Your task to perform on an android device: toggle show notifications on the lock screen Image 0: 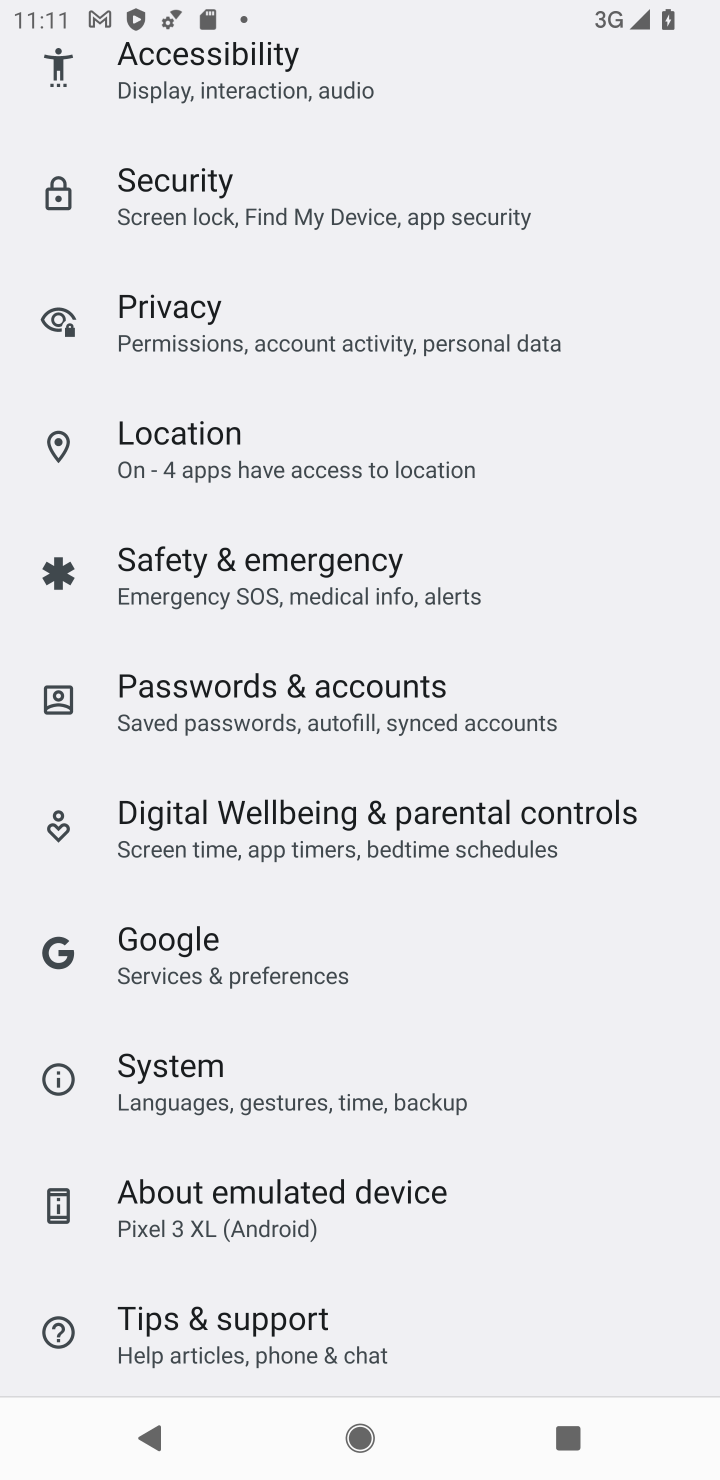
Step 0: drag from (433, 177) to (678, 1434)
Your task to perform on an android device: toggle show notifications on the lock screen Image 1: 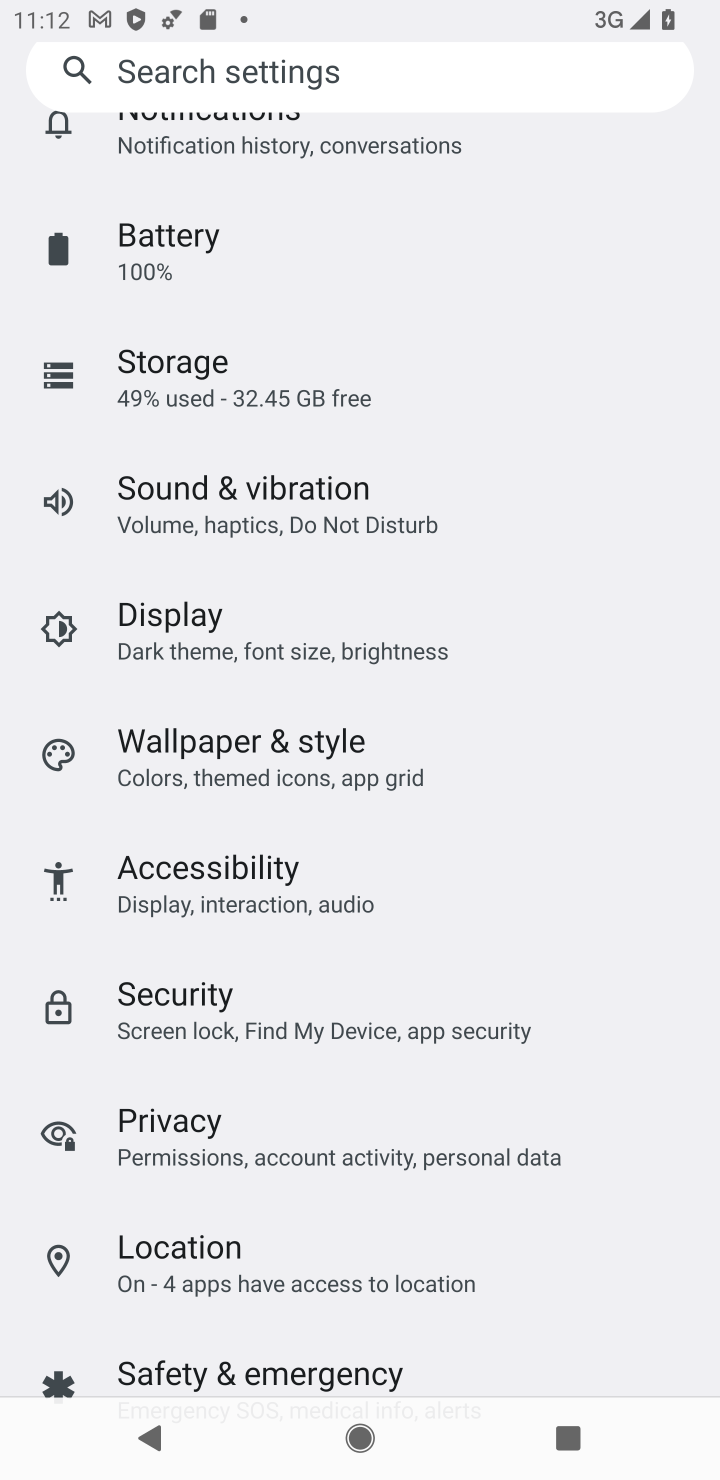
Step 1: drag from (343, 209) to (291, 1470)
Your task to perform on an android device: toggle show notifications on the lock screen Image 2: 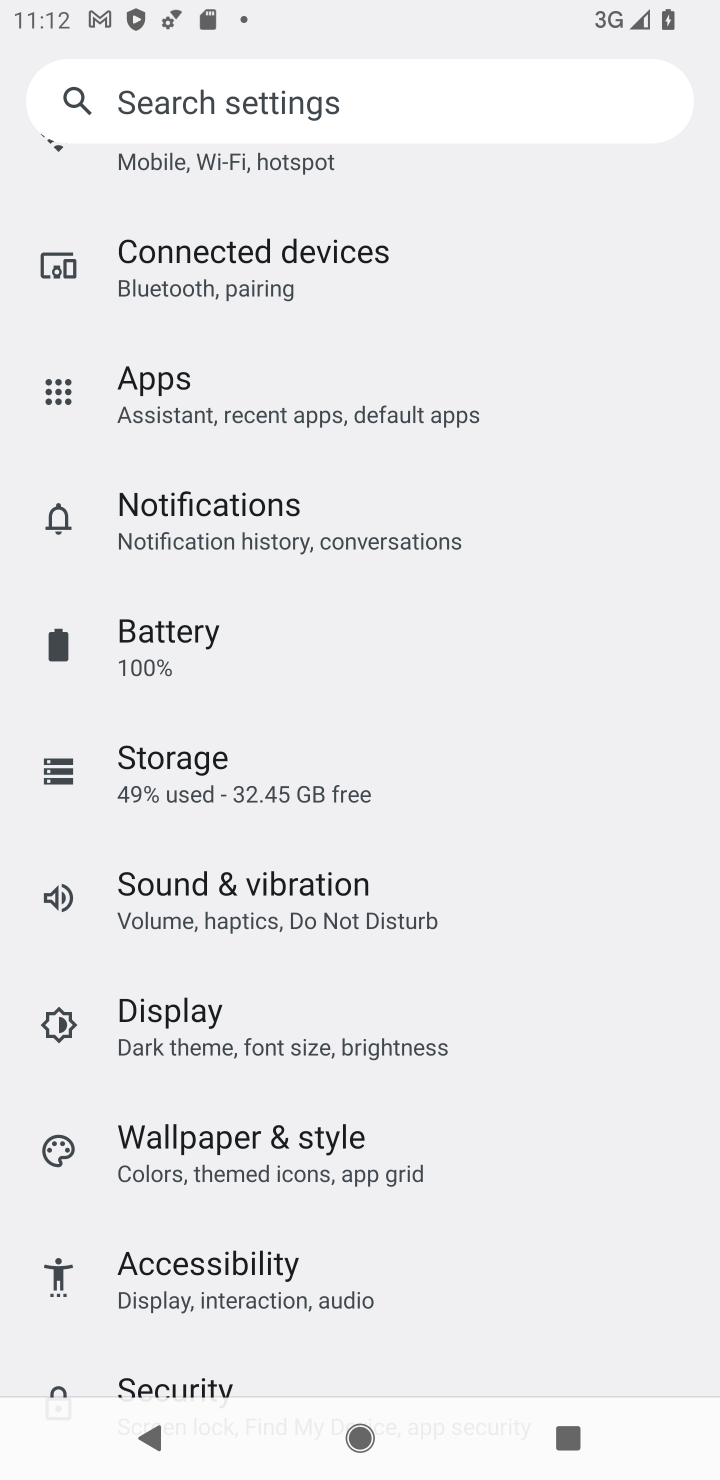
Step 2: drag from (370, 234) to (433, 844)
Your task to perform on an android device: toggle show notifications on the lock screen Image 3: 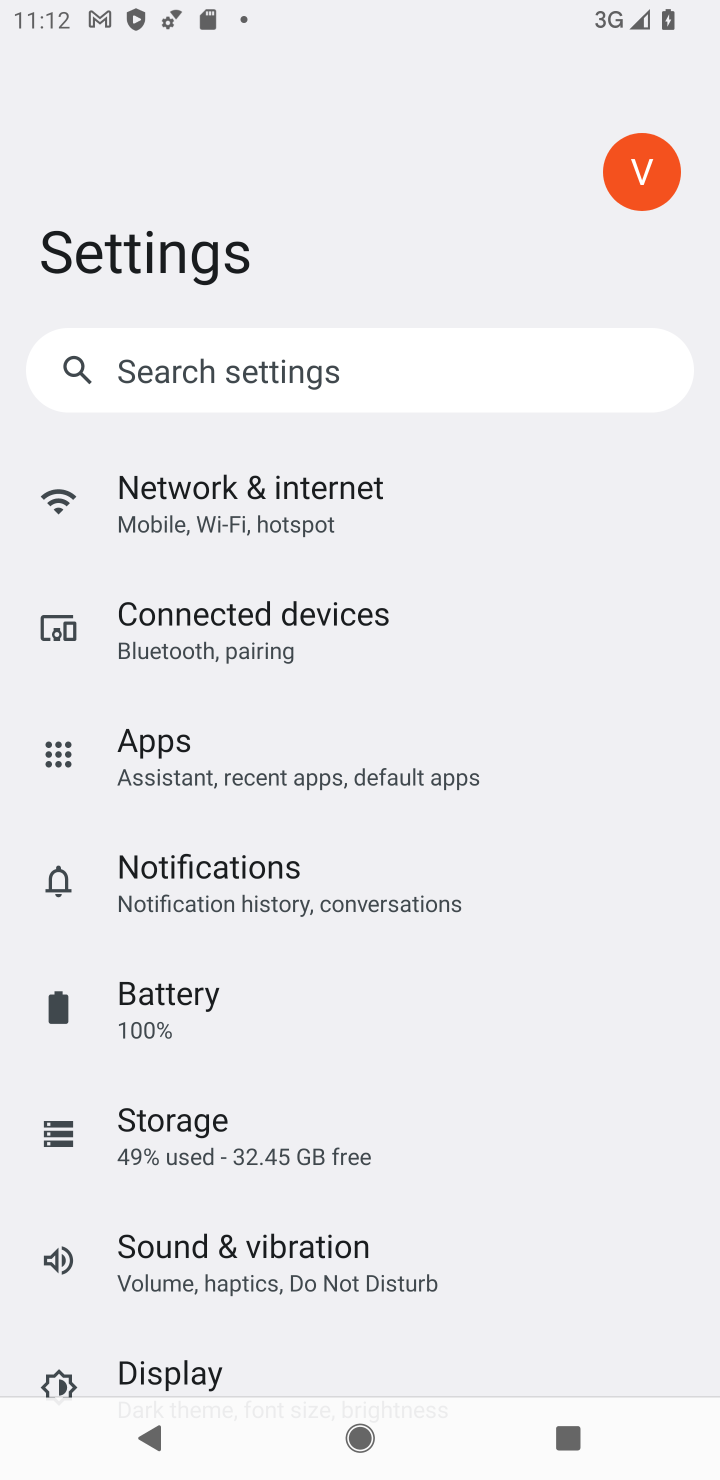
Step 3: click (213, 898)
Your task to perform on an android device: toggle show notifications on the lock screen Image 4: 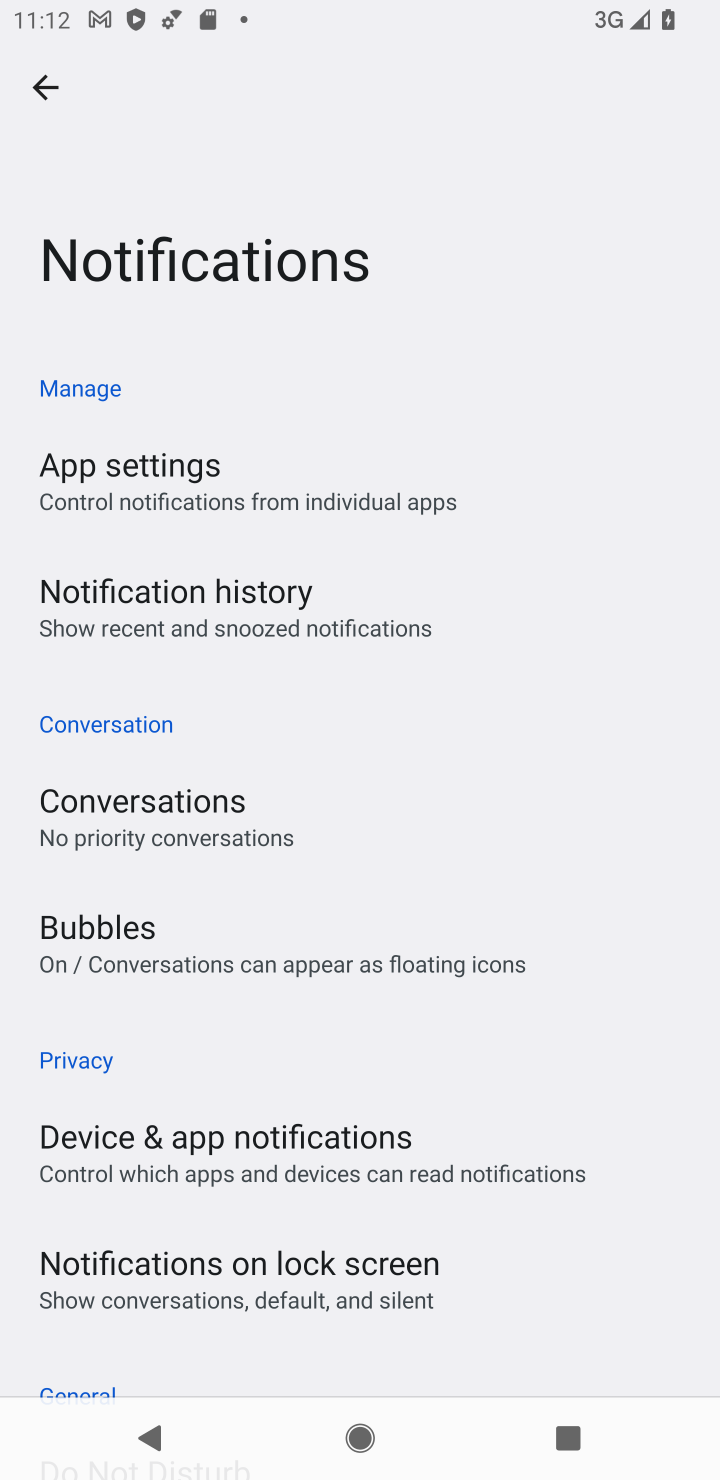
Step 4: click (540, 1282)
Your task to perform on an android device: toggle show notifications on the lock screen Image 5: 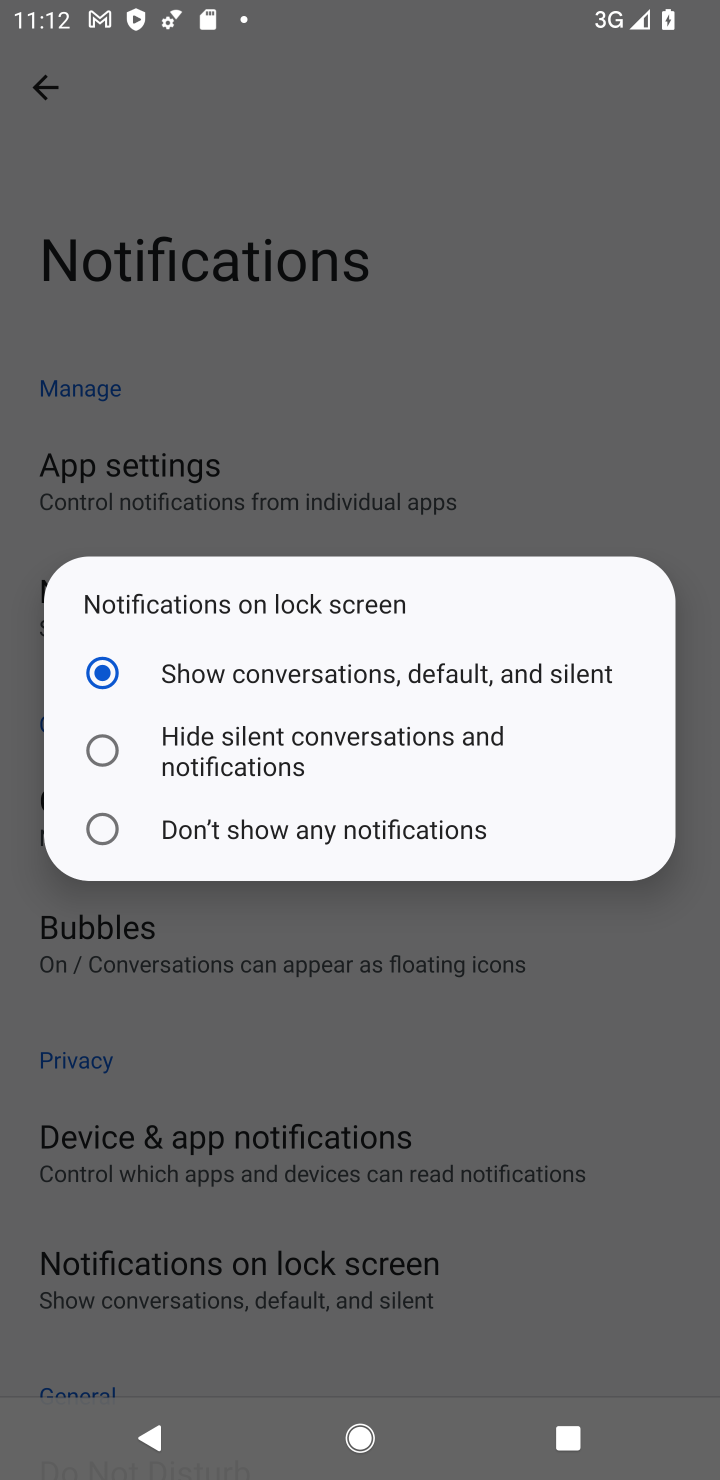
Step 5: click (357, 739)
Your task to perform on an android device: toggle show notifications on the lock screen Image 6: 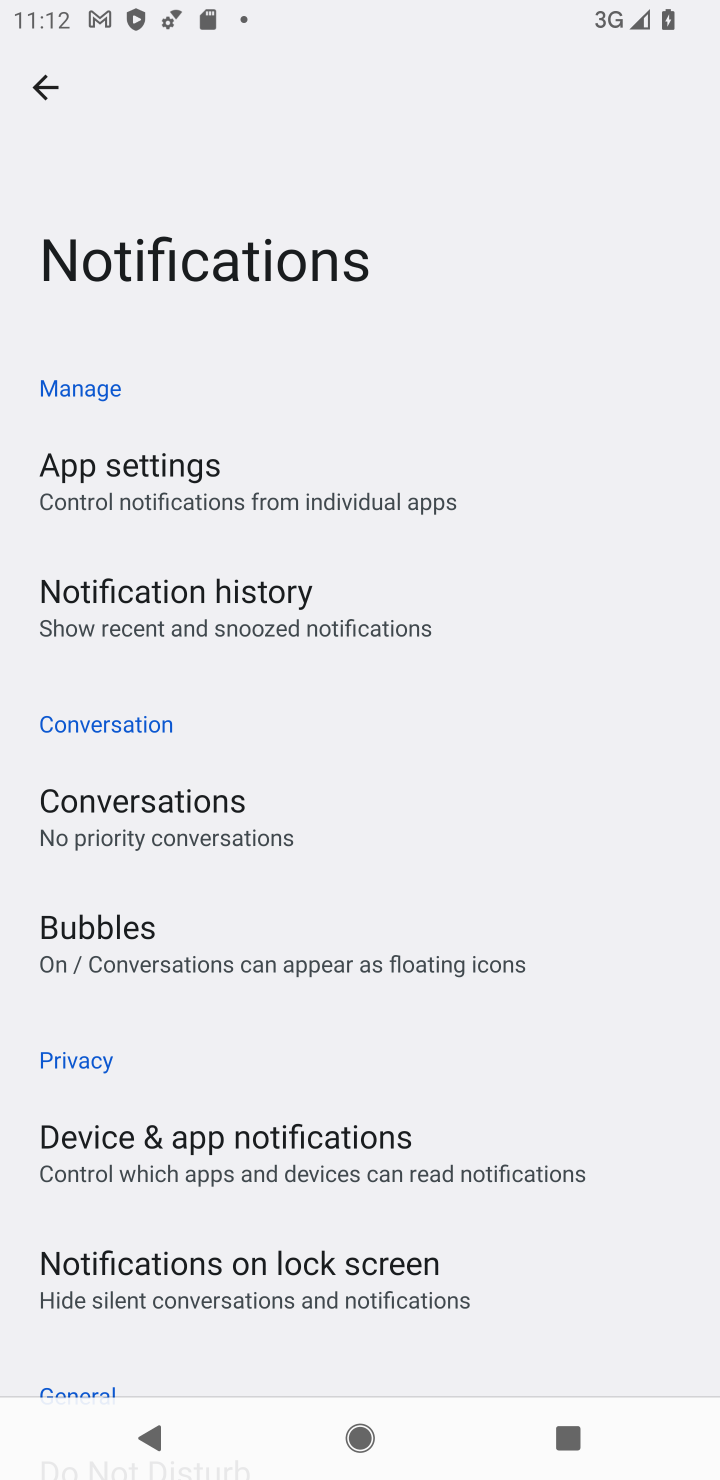
Step 6: task complete